Your task to perform on an android device: install app "LinkedIn" Image 0: 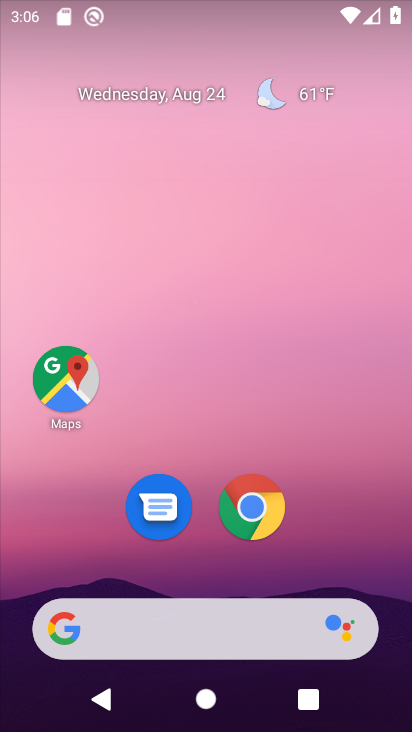
Step 0: drag from (180, 622) to (222, 44)
Your task to perform on an android device: install app "LinkedIn" Image 1: 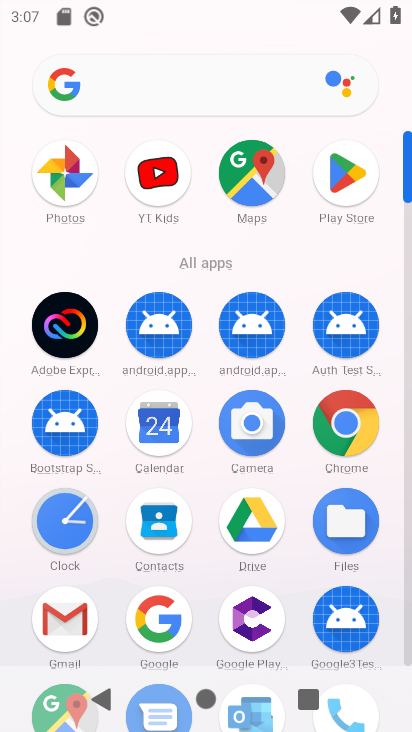
Step 1: click (350, 173)
Your task to perform on an android device: install app "LinkedIn" Image 2: 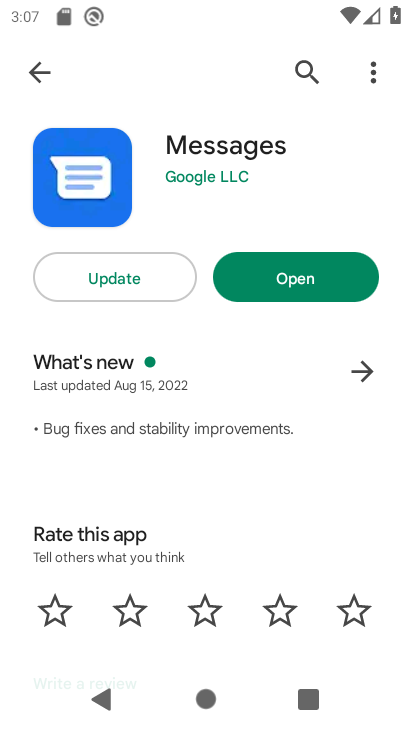
Step 2: press back button
Your task to perform on an android device: install app "LinkedIn" Image 3: 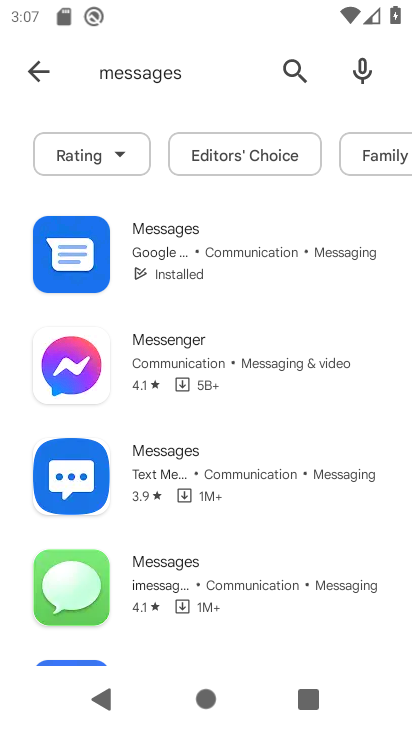
Step 3: press back button
Your task to perform on an android device: install app "LinkedIn" Image 4: 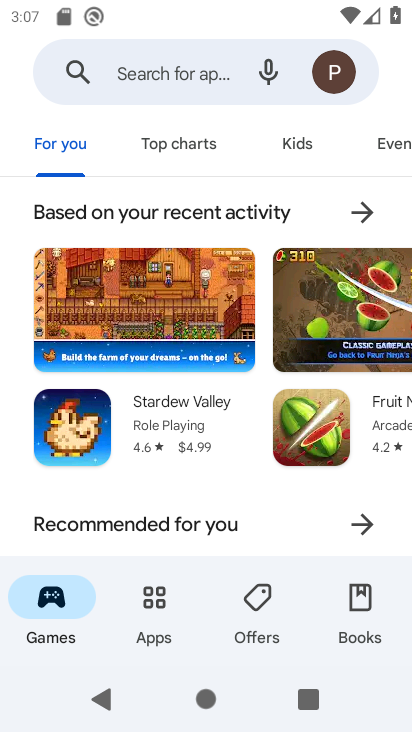
Step 4: click (197, 72)
Your task to perform on an android device: install app "LinkedIn" Image 5: 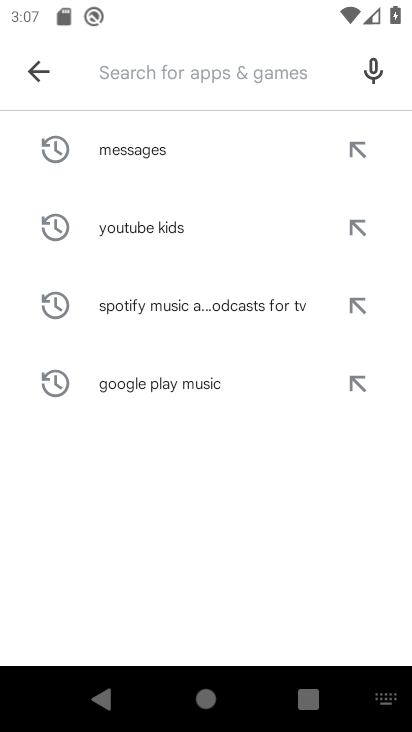
Step 5: type "LinkedIn"
Your task to perform on an android device: install app "LinkedIn" Image 6: 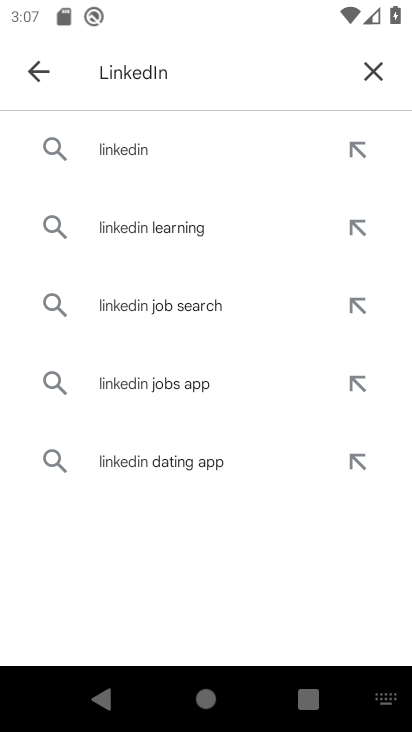
Step 6: click (132, 147)
Your task to perform on an android device: install app "LinkedIn" Image 7: 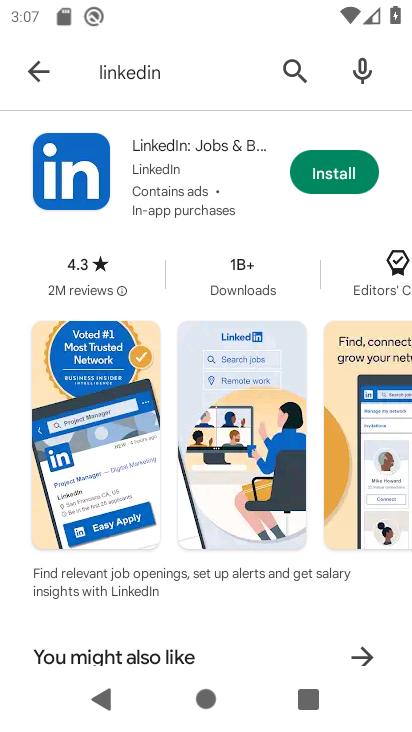
Step 7: click (328, 174)
Your task to perform on an android device: install app "LinkedIn" Image 8: 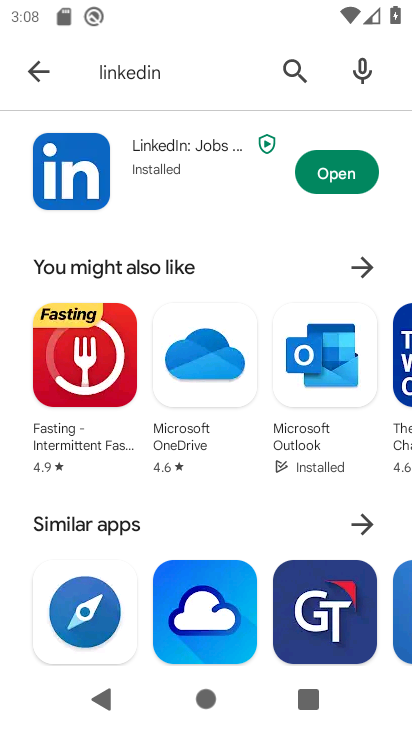
Step 8: task complete